Your task to perform on an android device: turn on javascript in the chrome app Image 0: 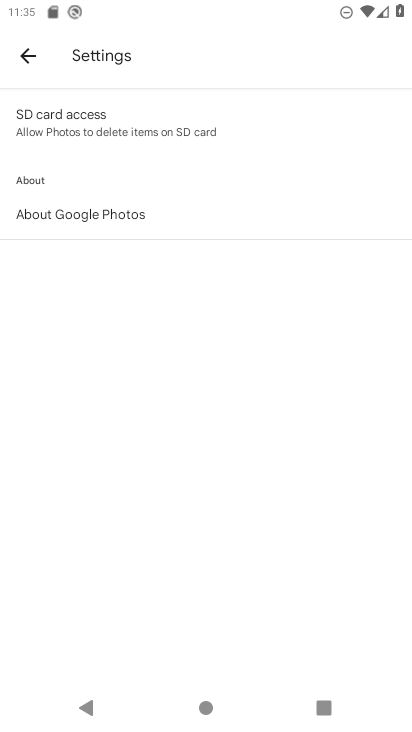
Step 0: drag from (303, 163) to (291, 95)
Your task to perform on an android device: turn on javascript in the chrome app Image 1: 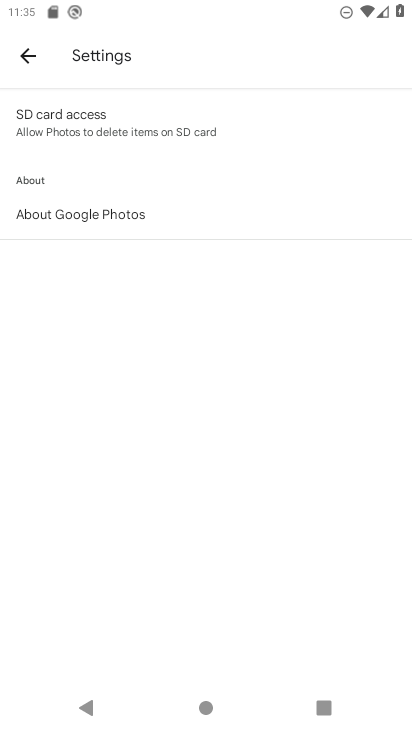
Step 1: press back button
Your task to perform on an android device: turn on javascript in the chrome app Image 2: 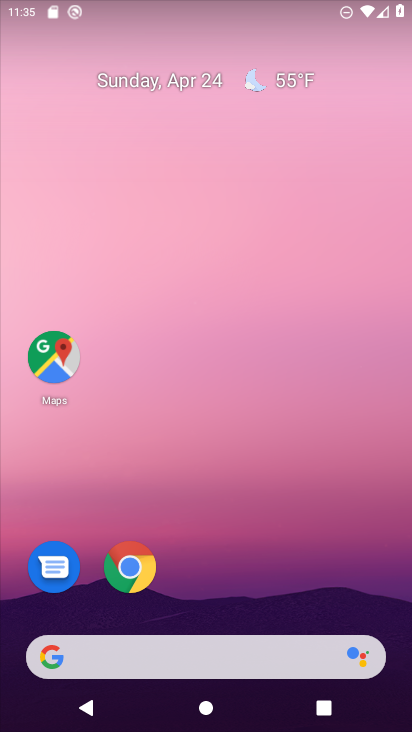
Step 2: click (346, 272)
Your task to perform on an android device: turn on javascript in the chrome app Image 3: 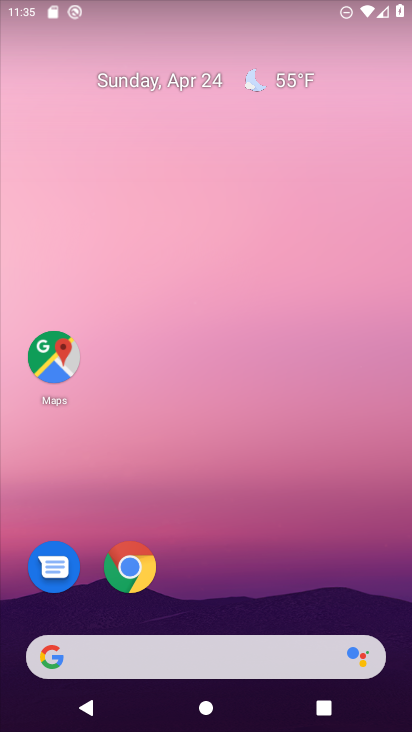
Step 3: click (134, 566)
Your task to perform on an android device: turn on javascript in the chrome app Image 4: 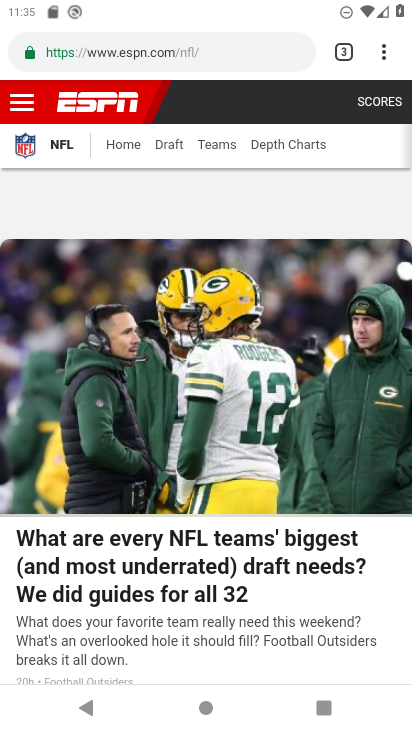
Step 4: click (379, 43)
Your task to perform on an android device: turn on javascript in the chrome app Image 5: 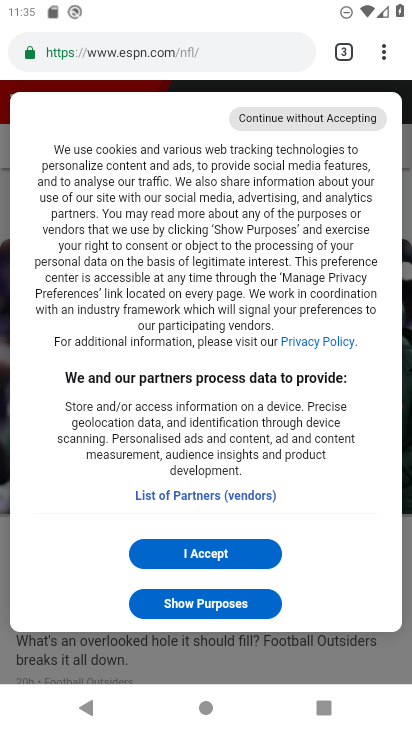
Step 5: click (384, 44)
Your task to perform on an android device: turn on javascript in the chrome app Image 6: 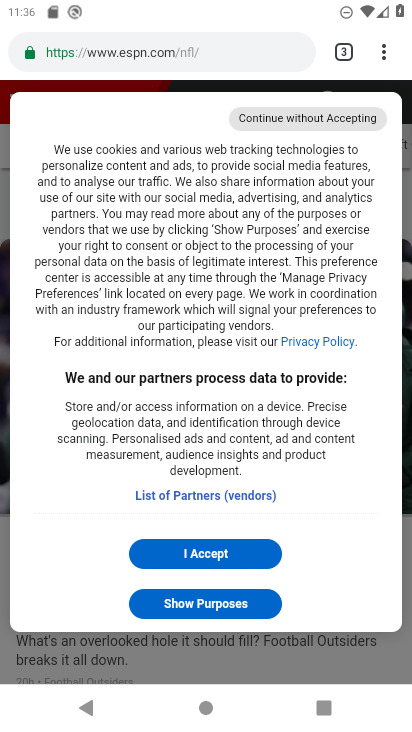
Step 6: click (387, 51)
Your task to perform on an android device: turn on javascript in the chrome app Image 7: 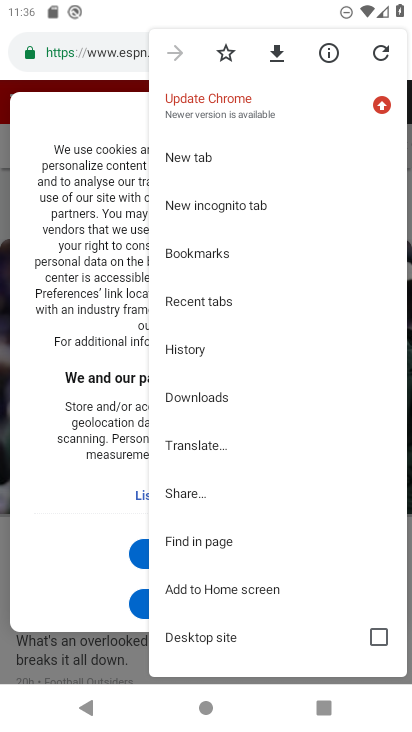
Step 7: drag from (295, 572) to (273, 280)
Your task to perform on an android device: turn on javascript in the chrome app Image 8: 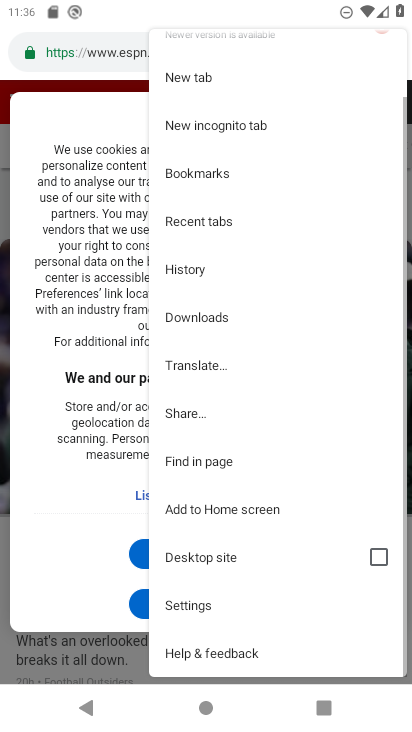
Step 8: click (202, 602)
Your task to perform on an android device: turn on javascript in the chrome app Image 9: 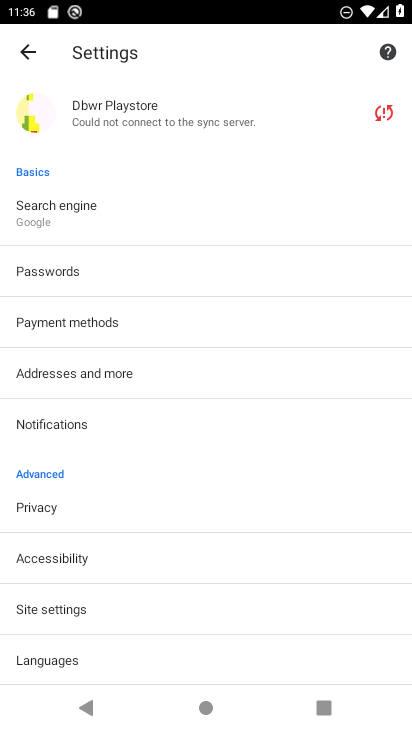
Step 9: click (69, 606)
Your task to perform on an android device: turn on javascript in the chrome app Image 10: 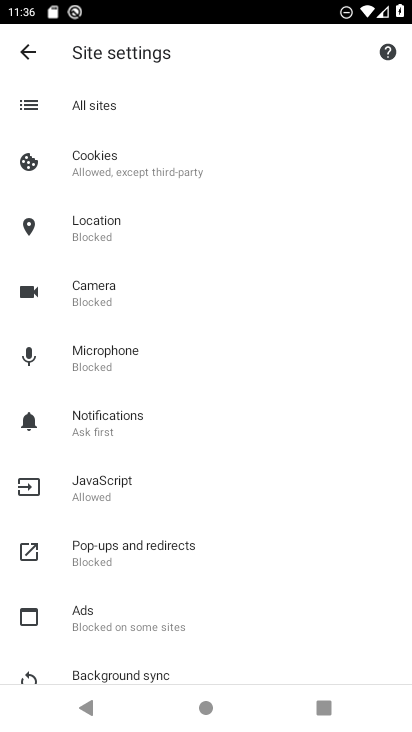
Step 10: click (97, 480)
Your task to perform on an android device: turn on javascript in the chrome app Image 11: 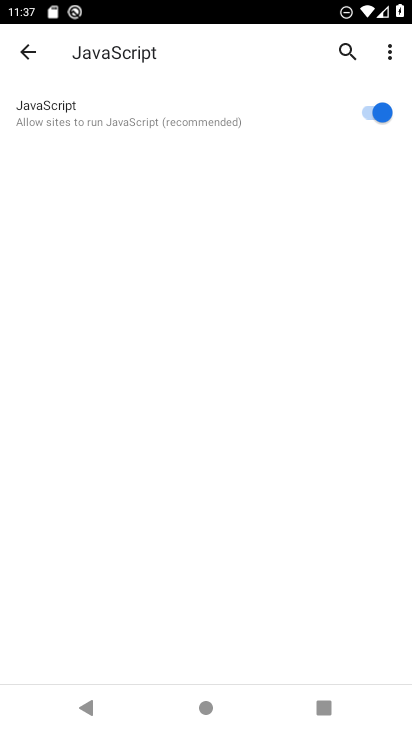
Step 11: task complete